Your task to perform on an android device: Open accessibility settings Image 0: 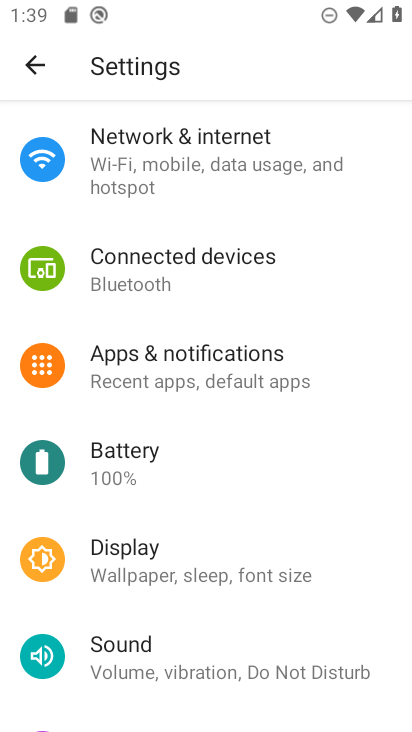
Step 0: click (259, 174)
Your task to perform on an android device: Open accessibility settings Image 1: 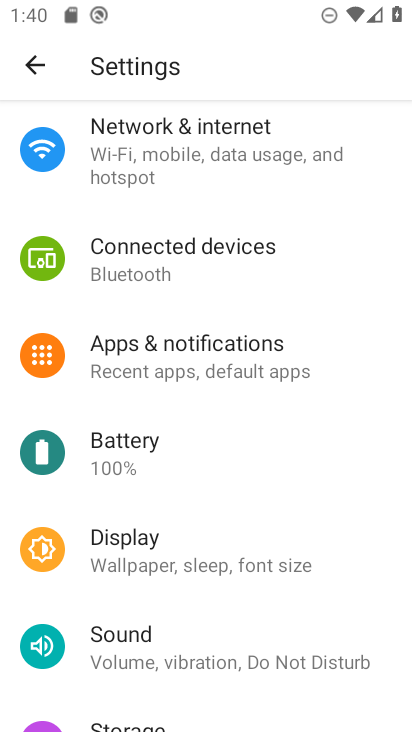
Step 1: drag from (219, 596) to (242, 205)
Your task to perform on an android device: Open accessibility settings Image 2: 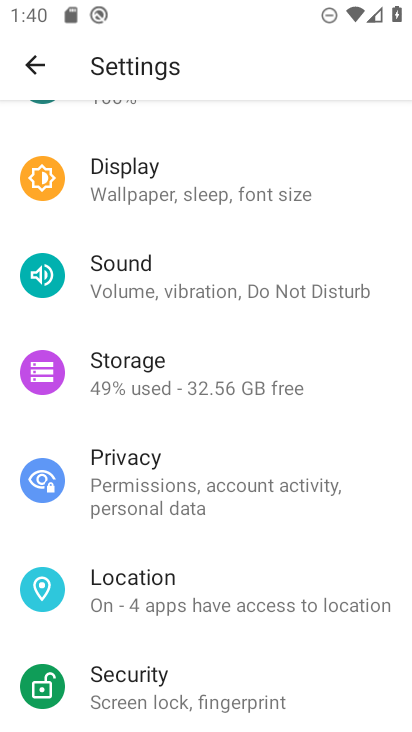
Step 2: drag from (224, 582) to (293, 185)
Your task to perform on an android device: Open accessibility settings Image 3: 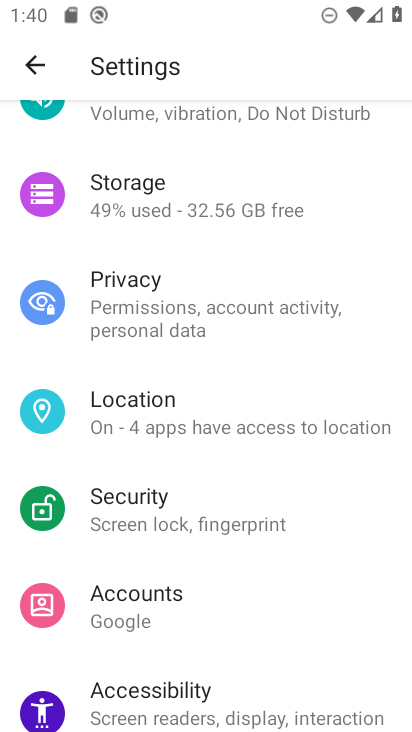
Step 3: click (181, 711)
Your task to perform on an android device: Open accessibility settings Image 4: 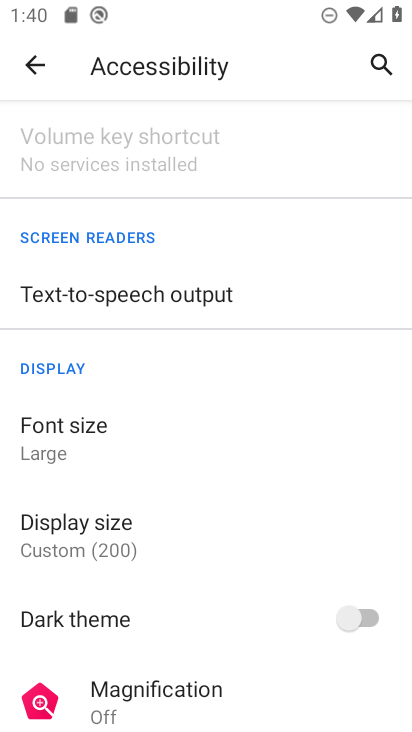
Step 4: task complete